Your task to perform on an android device: turn off improve location accuracy Image 0: 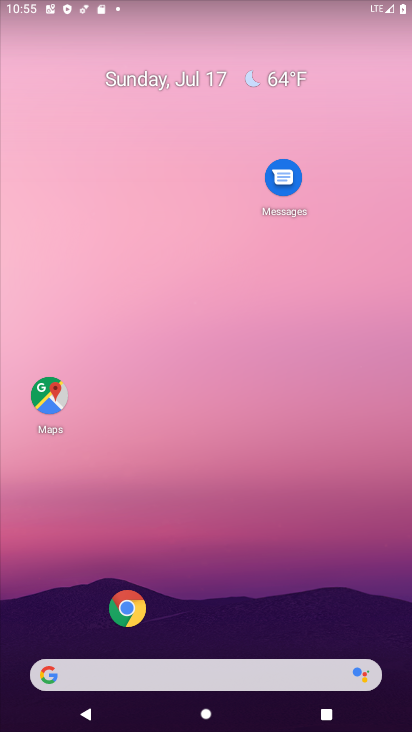
Step 0: drag from (63, 564) to (141, 213)
Your task to perform on an android device: turn off improve location accuracy Image 1: 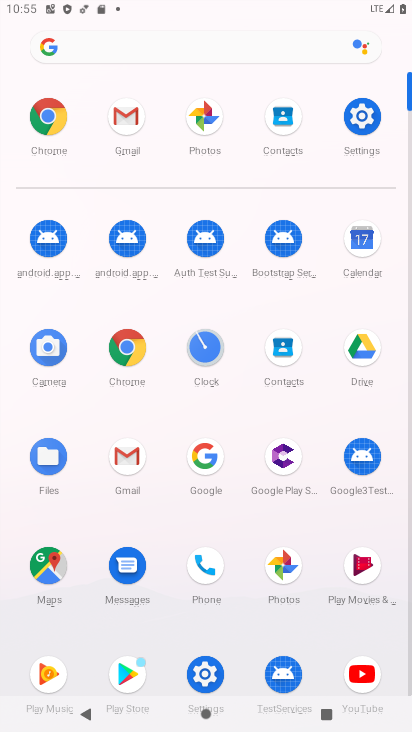
Step 1: click (197, 671)
Your task to perform on an android device: turn off improve location accuracy Image 2: 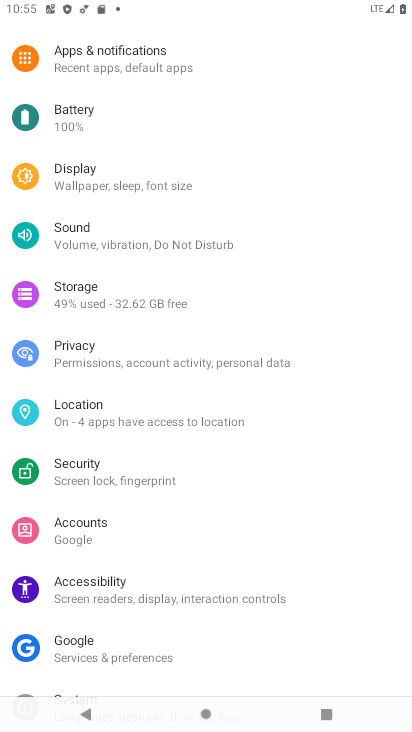
Step 2: click (139, 419)
Your task to perform on an android device: turn off improve location accuracy Image 3: 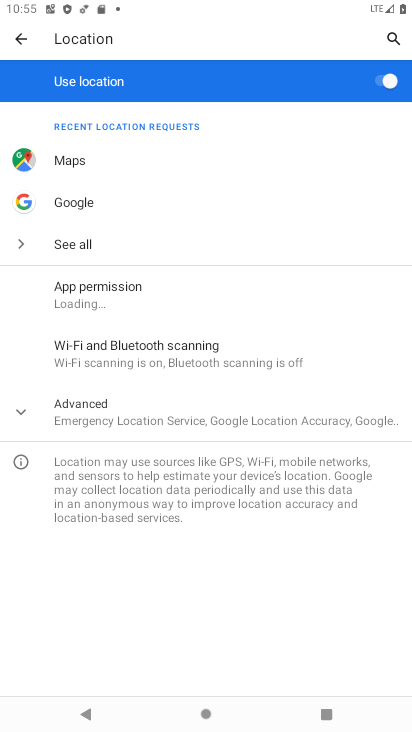
Step 3: click (119, 405)
Your task to perform on an android device: turn off improve location accuracy Image 4: 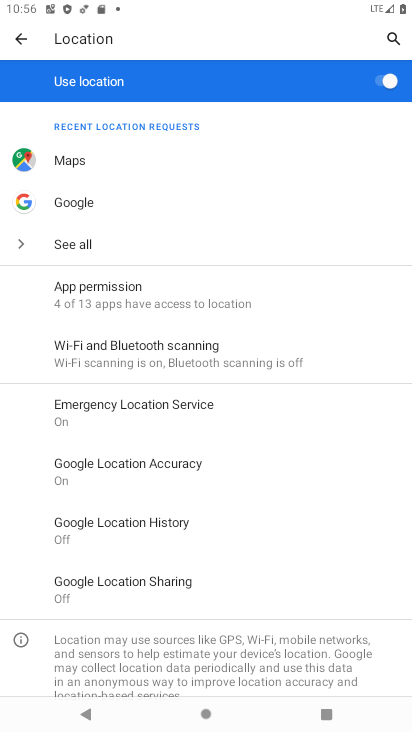
Step 4: click (108, 459)
Your task to perform on an android device: turn off improve location accuracy Image 5: 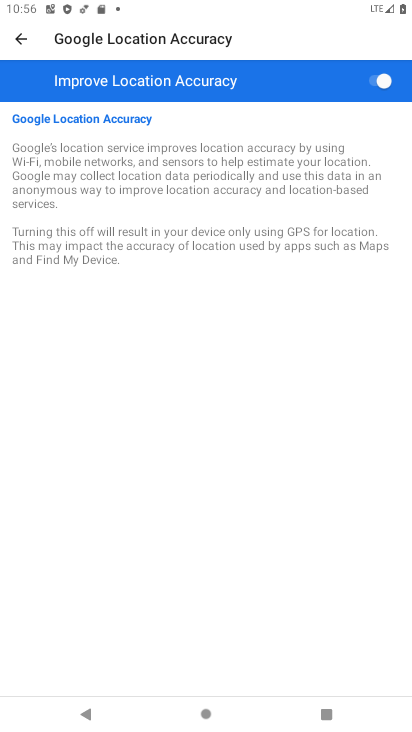
Step 5: click (375, 83)
Your task to perform on an android device: turn off improve location accuracy Image 6: 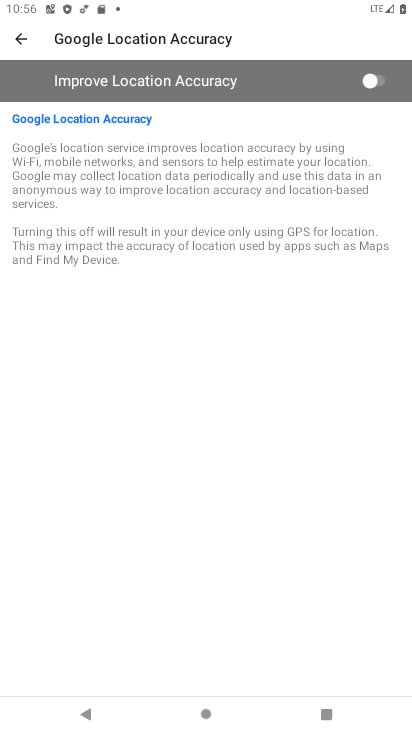
Step 6: task complete